Your task to perform on an android device: What's the news in Thailand? Image 0: 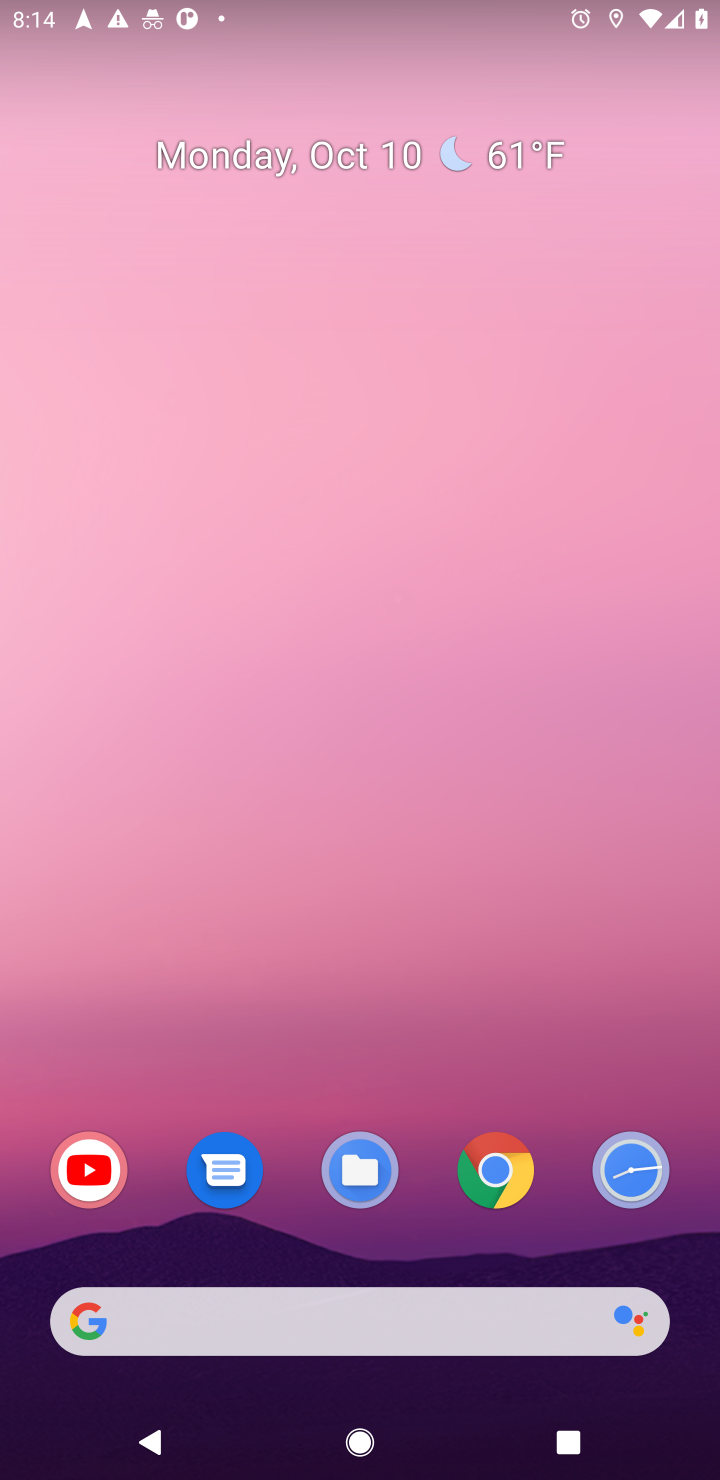
Step 0: click (506, 1185)
Your task to perform on an android device: What's the news in Thailand? Image 1: 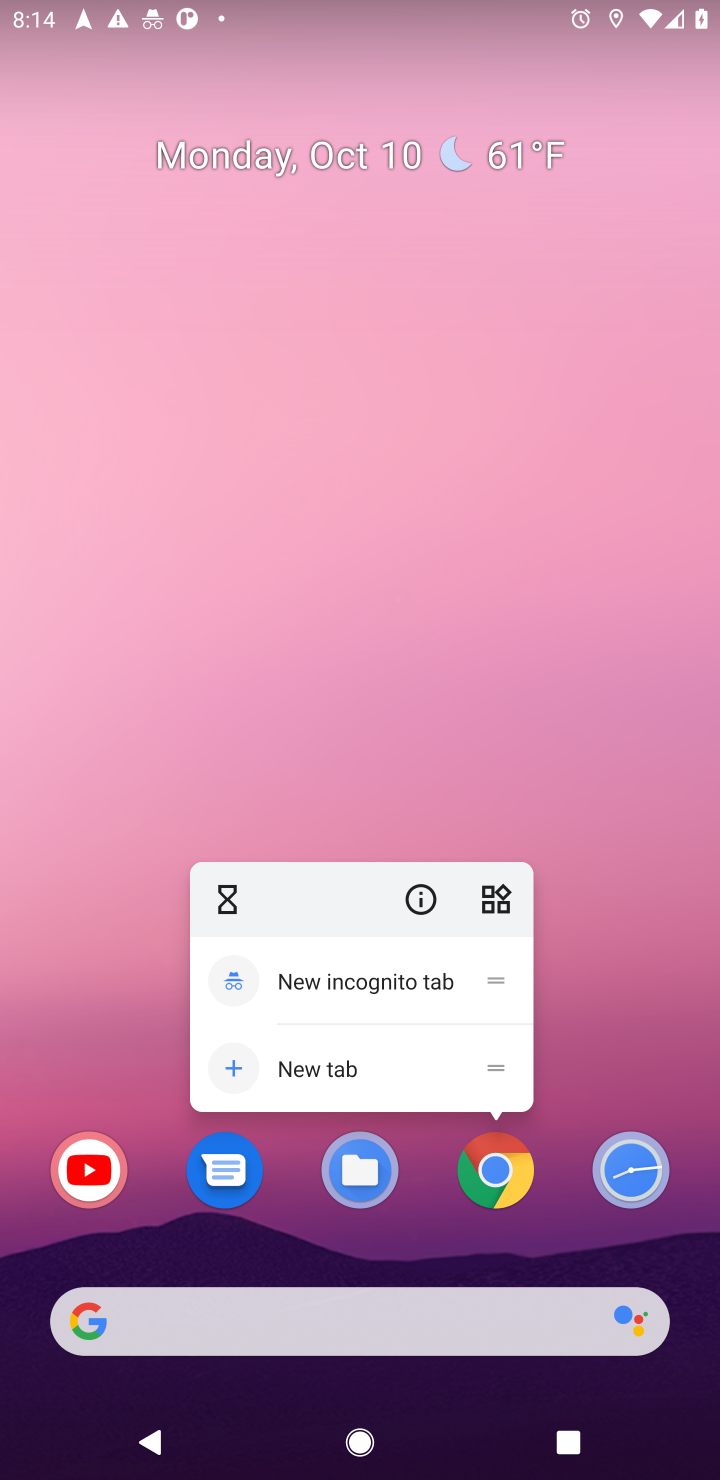
Step 1: click (507, 1175)
Your task to perform on an android device: What's the news in Thailand? Image 2: 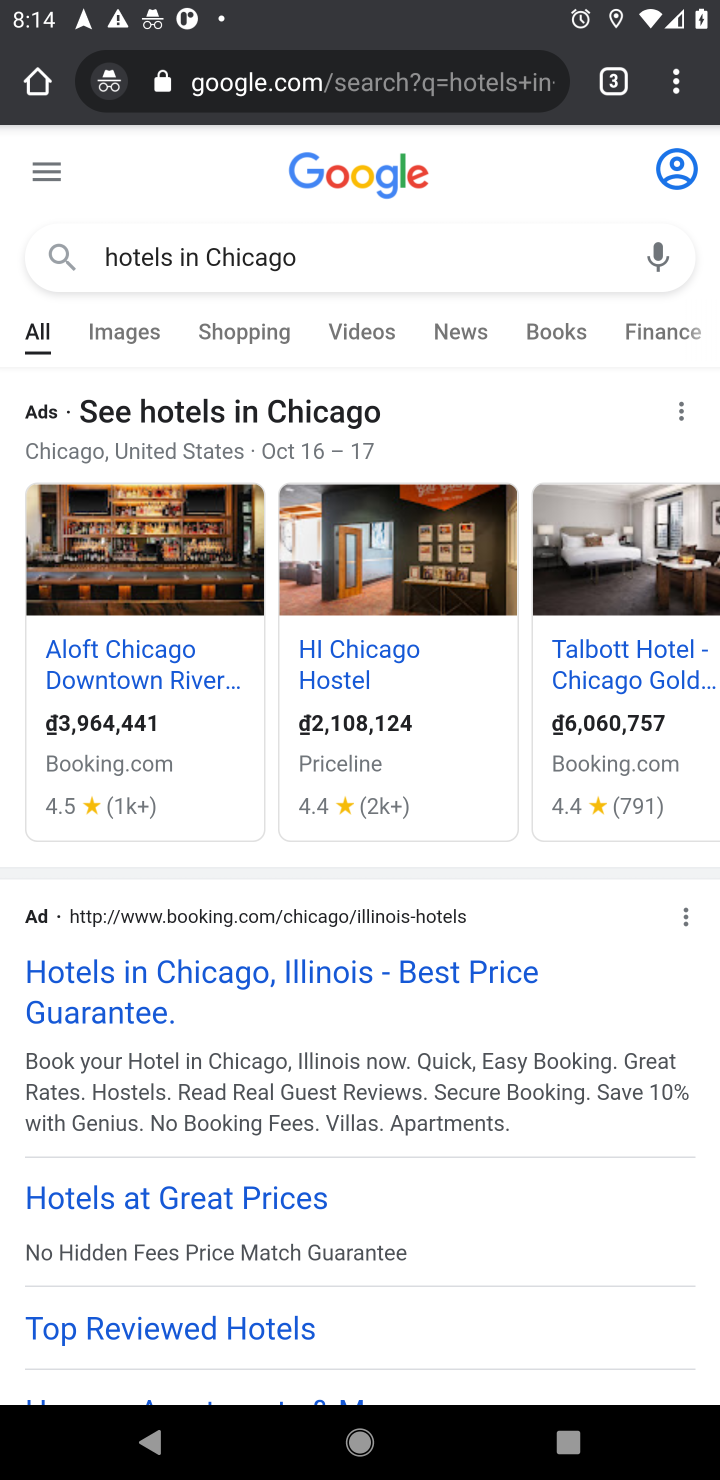
Step 2: click (405, 101)
Your task to perform on an android device: What's the news in Thailand? Image 3: 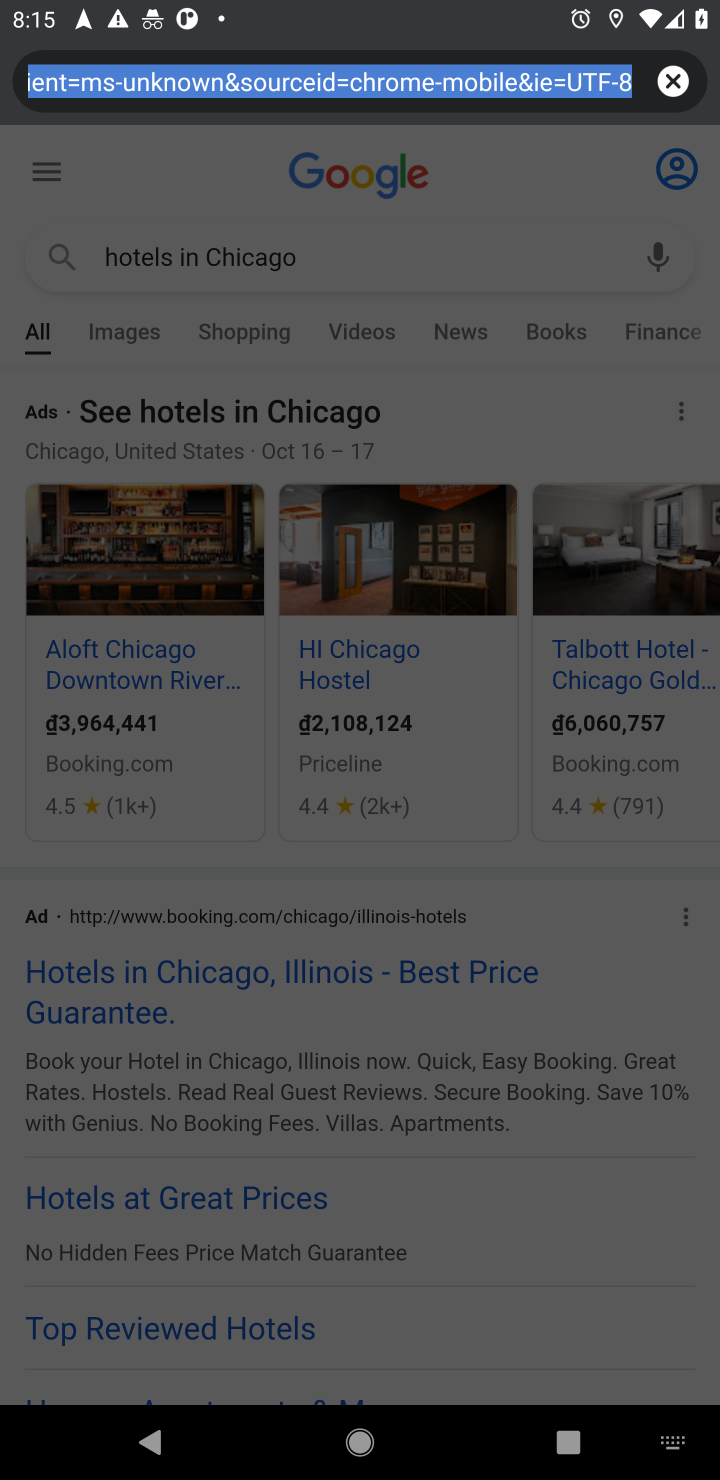
Step 3: type "news in thailand"
Your task to perform on an android device: What's the news in Thailand? Image 4: 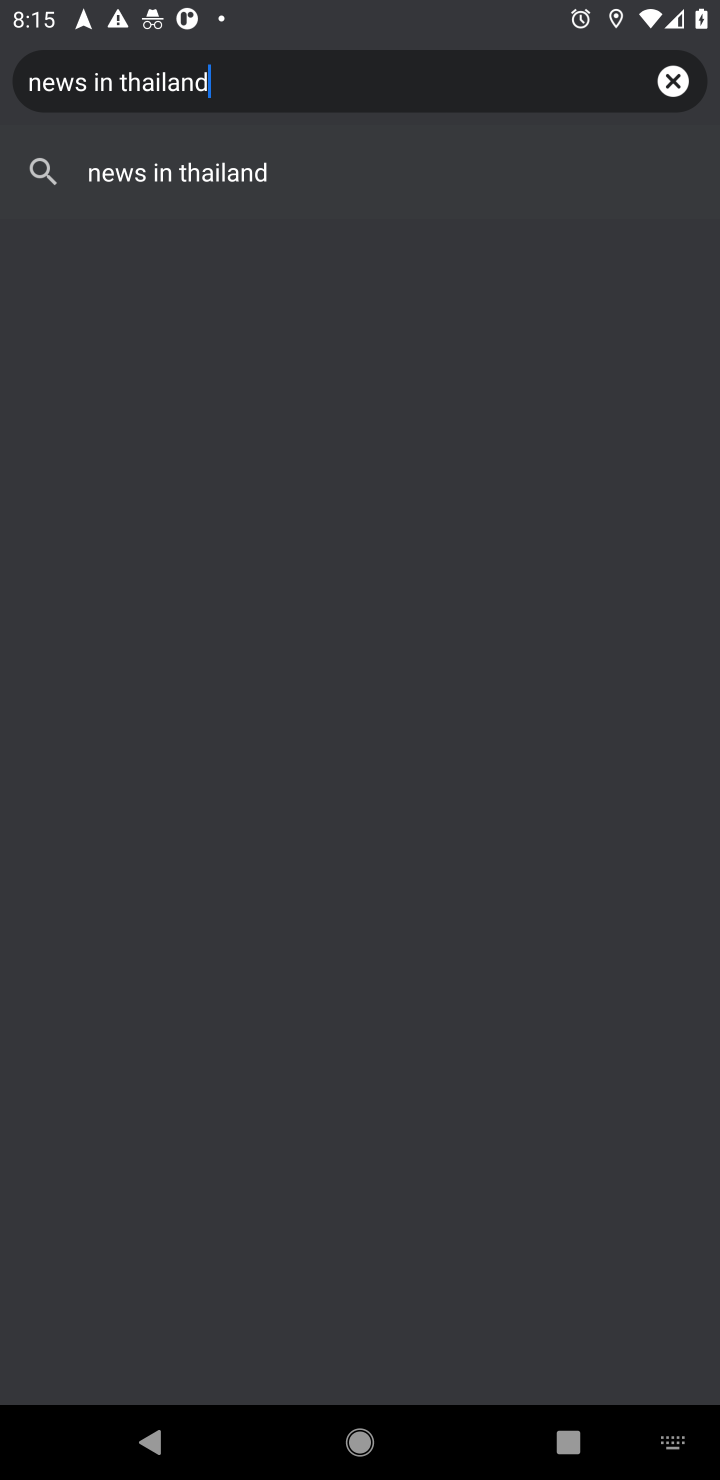
Step 4: click (388, 160)
Your task to perform on an android device: What's the news in Thailand? Image 5: 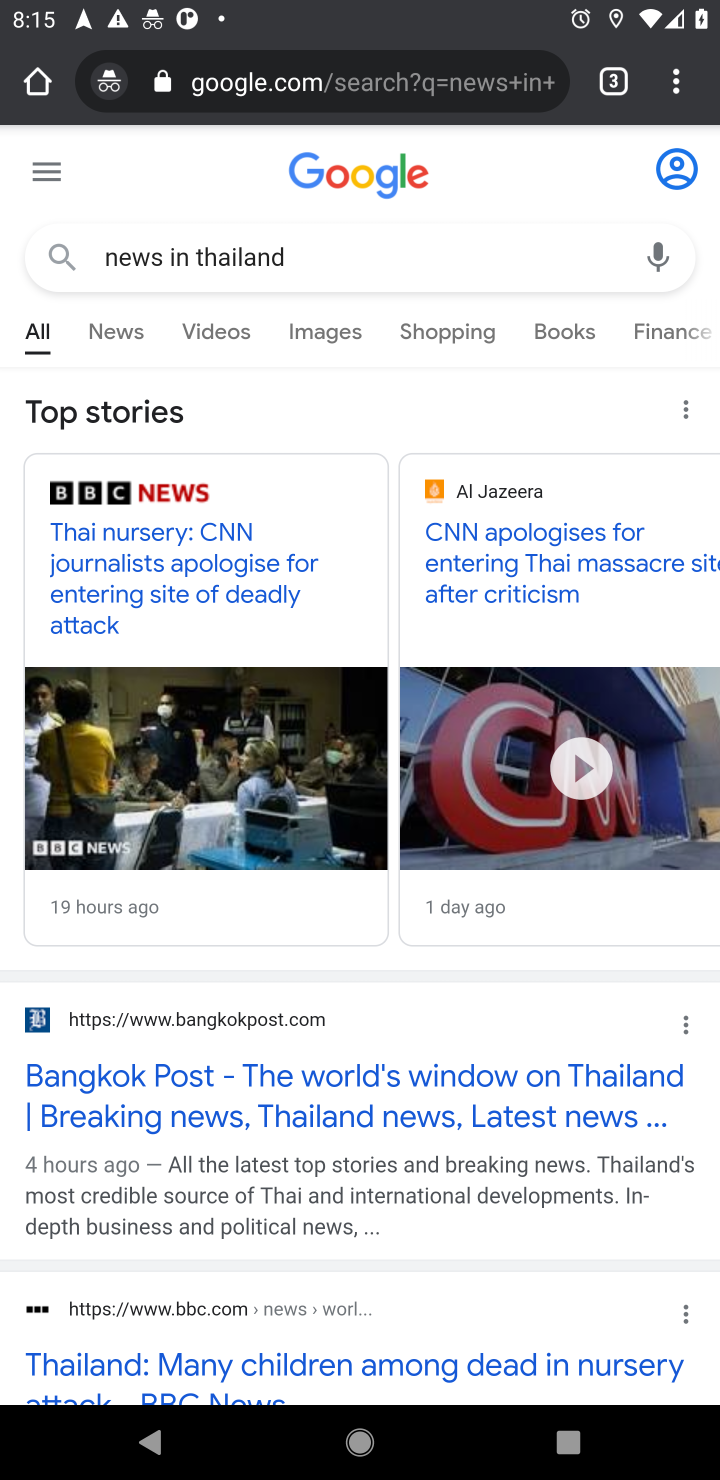
Step 5: click (123, 330)
Your task to perform on an android device: What's the news in Thailand? Image 6: 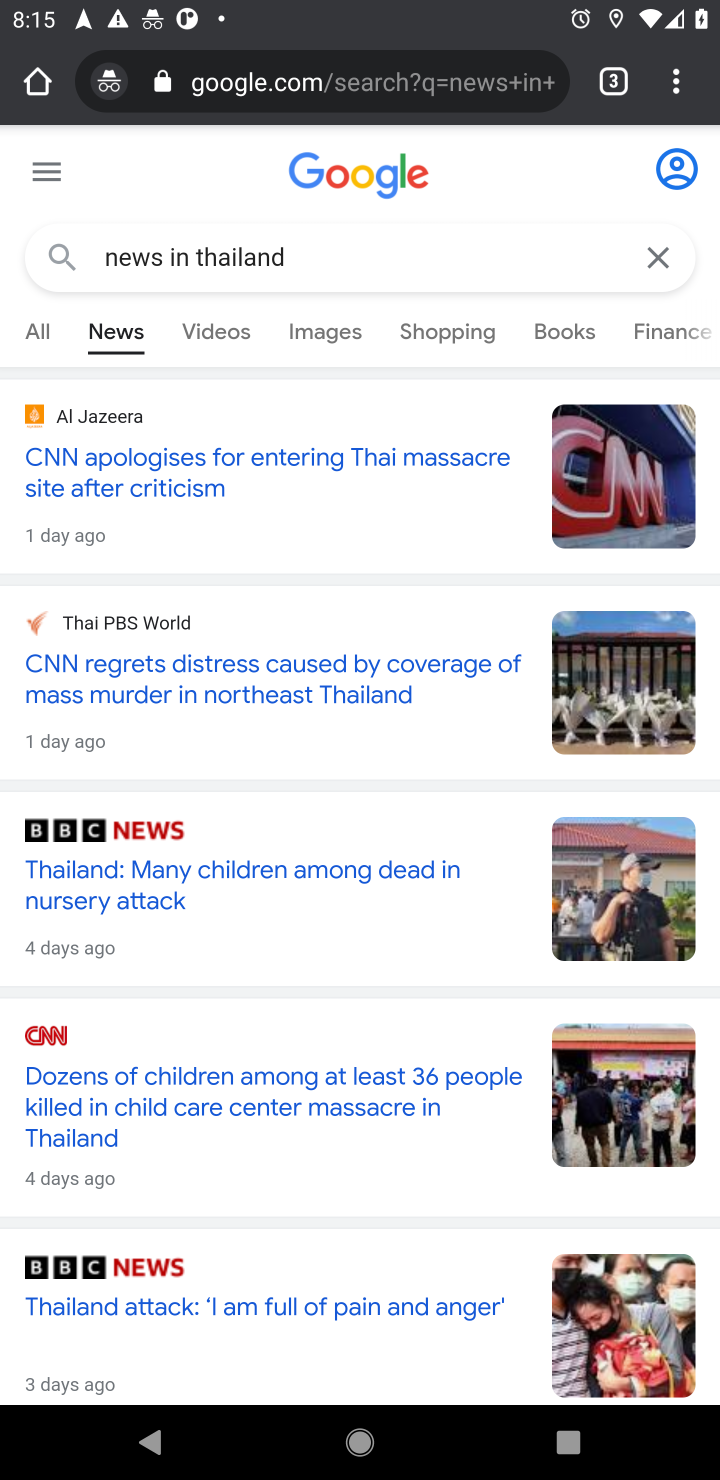
Step 6: task complete